Your task to perform on an android device: Open Maps and search for coffee Image 0: 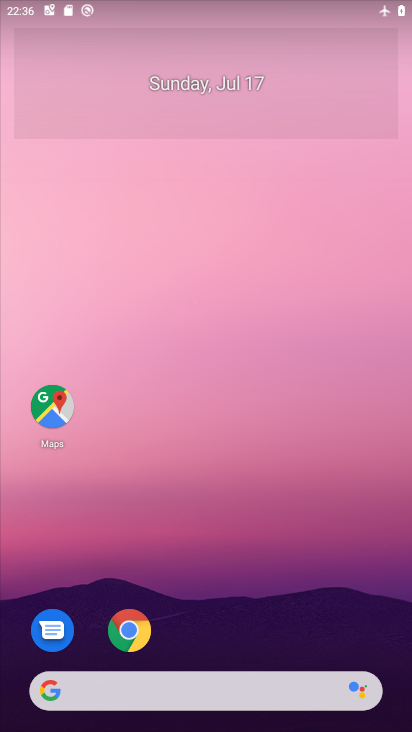
Step 0: click (59, 415)
Your task to perform on an android device: Open Maps and search for coffee Image 1: 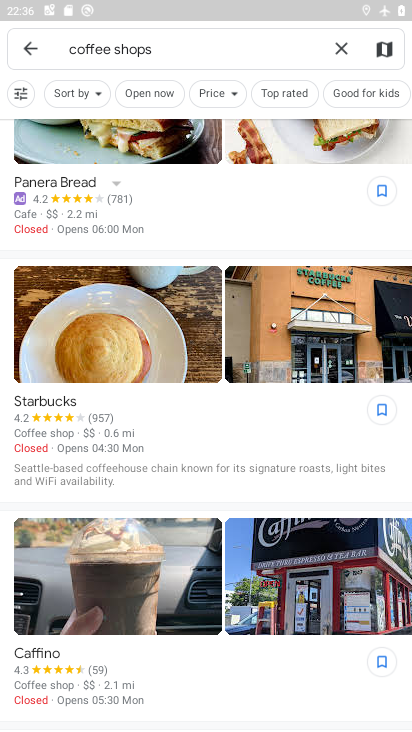
Step 1: click (29, 43)
Your task to perform on an android device: Open Maps and search for coffee Image 2: 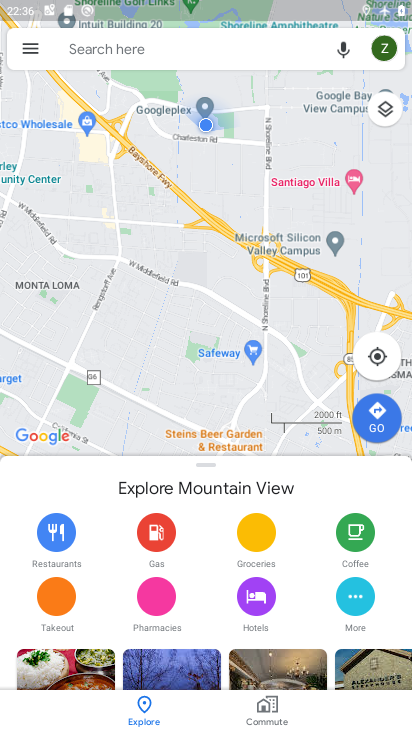
Step 2: click (167, 57)
Your task to perform on an android device: Open Maps and search for coffee Image 3: 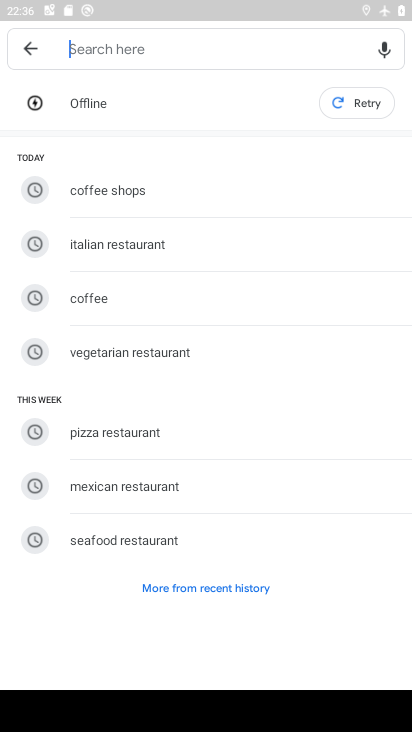
Step 3: type "coffee"
Your task to perform on an android device: Open Maps and search for coffee Image 4: 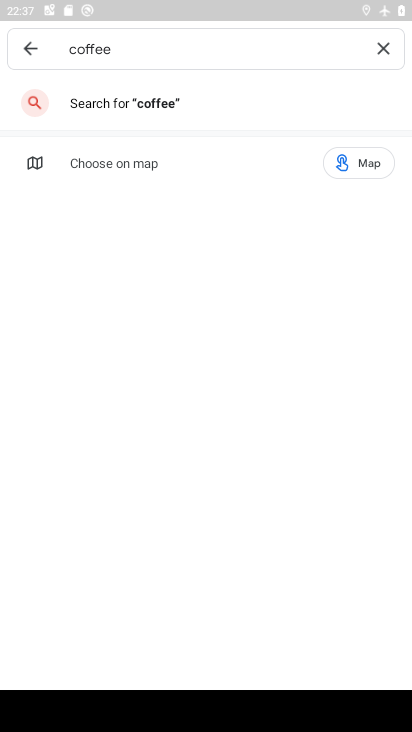
Step 4: click (157, 112)
Your task to perform on an android device: Open Maps and search for coffee Image 5: 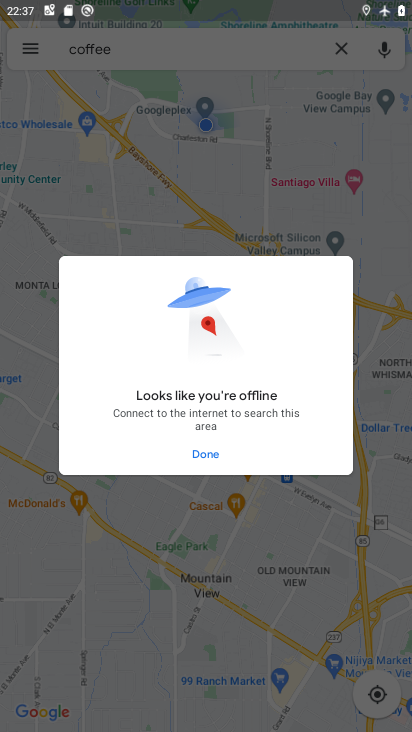
Step 5: click (237, 459)
Your task to perform on an android device: Open Maps and search for coffee Image 6: 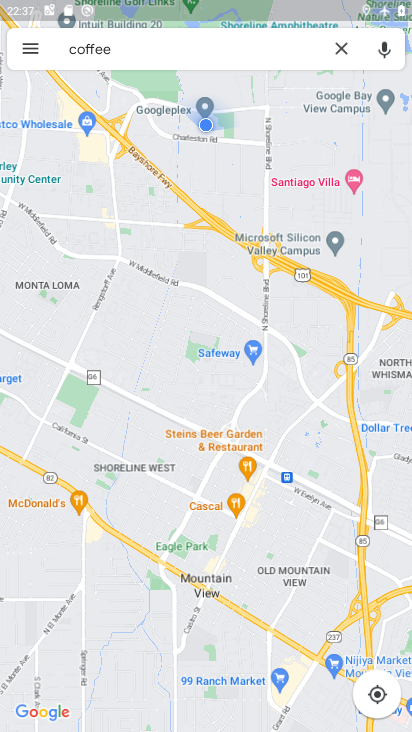
Step 6: task complete